Your task to perform on an android device: Go to calendar. Show me events next week Image 0: 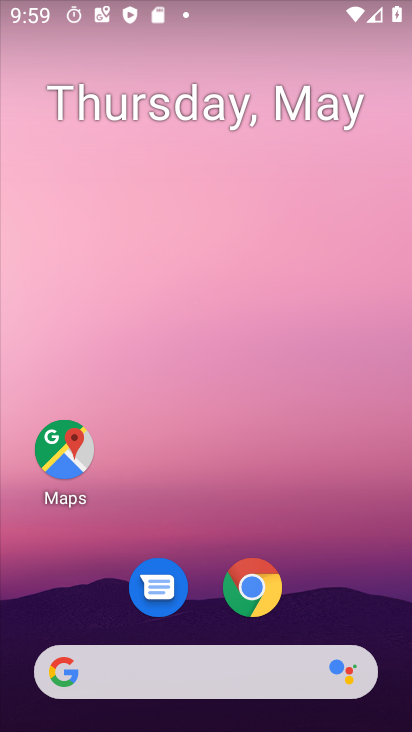
Step 0: drag from (350, 614) to (323, 118)
Your task to perform on an android device: Go to calendar. Show me events next week Image 1: 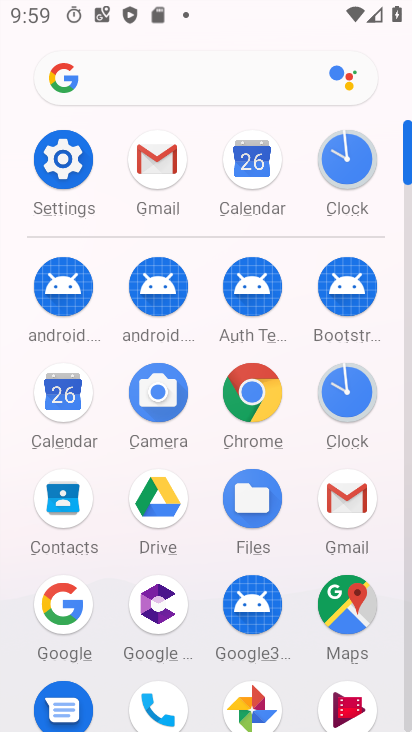
Step 1: click (237, 165)
Your task to perform on an android device: Go to calendar. Show me events next week Image 2: 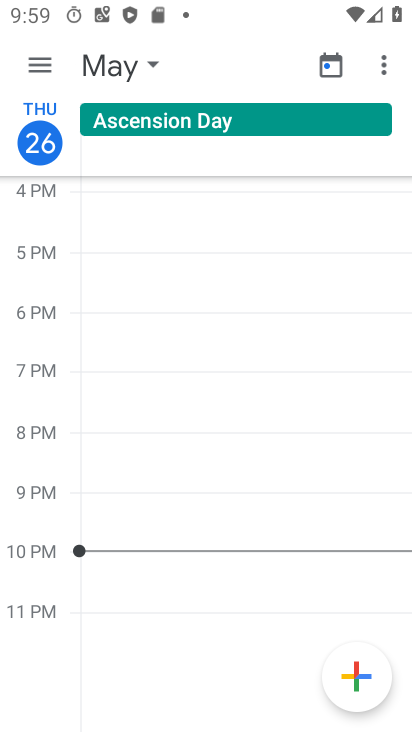
Step 2: click (52, 67)
Your task to perform on an android device: Go to calendar. Show me events next week Image 3: 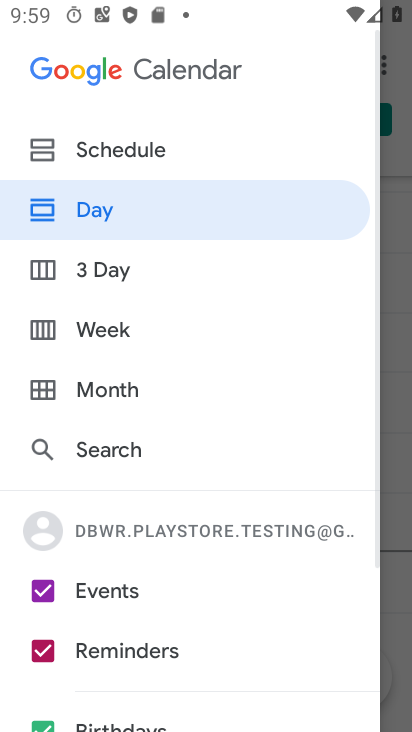
Step 3: click (107, 334)
Your task to perform on an android device: Go to calendar. Show me events next week Image 4: 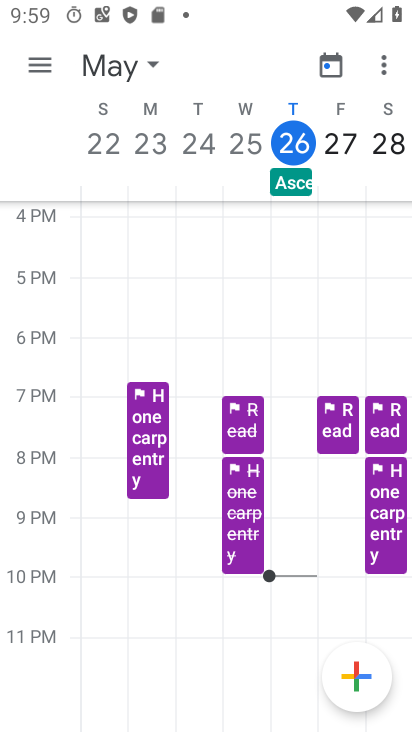
Step 4: drag from (349, 348) to (2, 182)
Your task to perform on an android device: Go to calendar. Show me events next week Image 5: 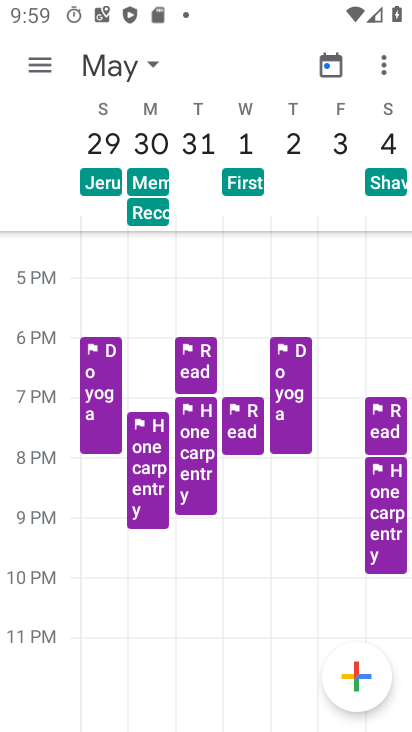
Step 5: click (47, 64)
Your task to perform on an android device: Go to calendar. Show me events next week Image 6: 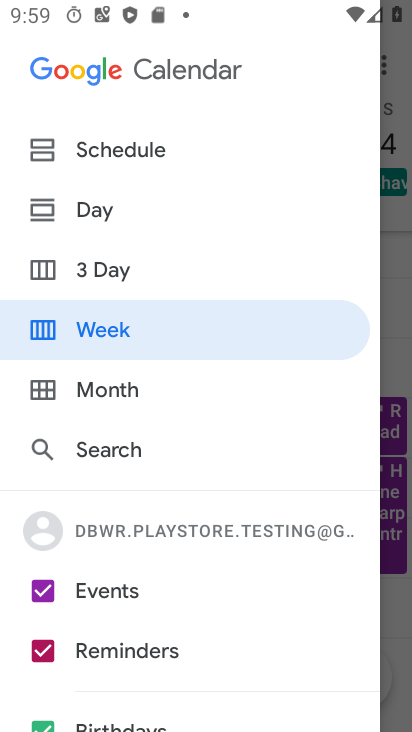
Step 6: click (37, 646)
Your task to perform on an android device: Go to calendar. Show me events next week Image 7: 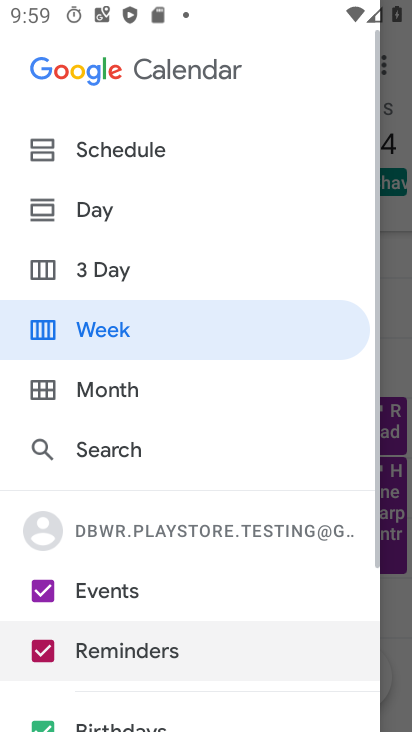
Step 7: drag from (221, 651) to (229, 267)
Your task to perform on an android device: Go to calendar. Show me events next week Image 8: 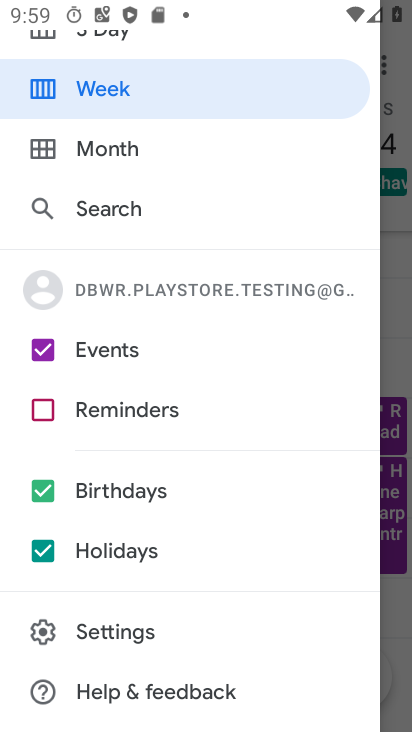
Step 8: click (37, 492)
Your task to perform on an android device: Go to calendar. Show me events next week Image 9: 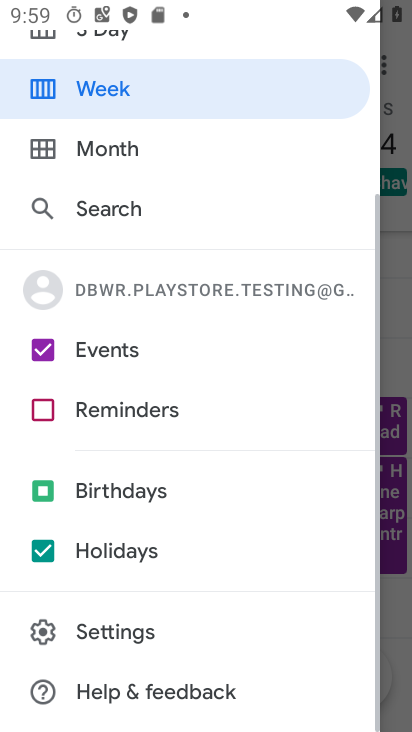
Step 9: click (45, 556)
Your task to perform on an android device: Go to calendar. Show me events next week Image 10: 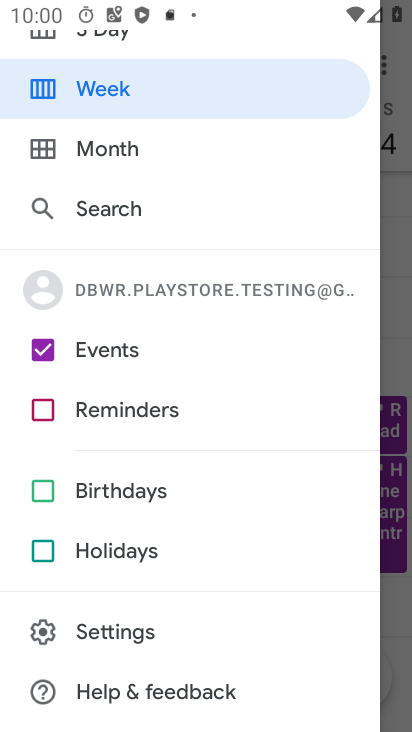
Step 10: click (95, 87)
Your task to perform on an android device: Go to calendar. Show me events next week Image 11: 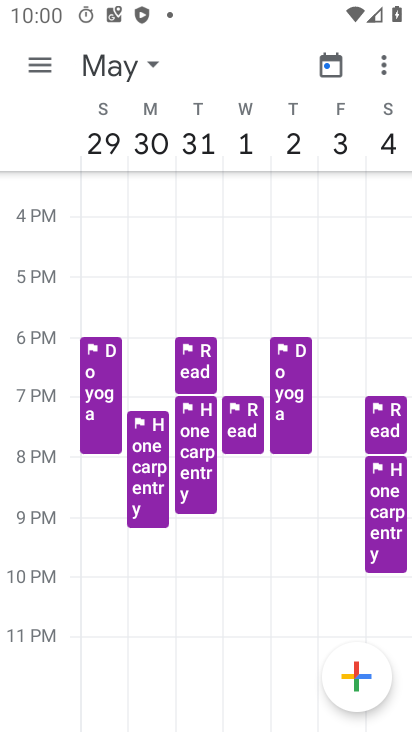
Step 11: task complete